Your task to perform on an android device: see tabs open on other devices in the chrome app Image 0: 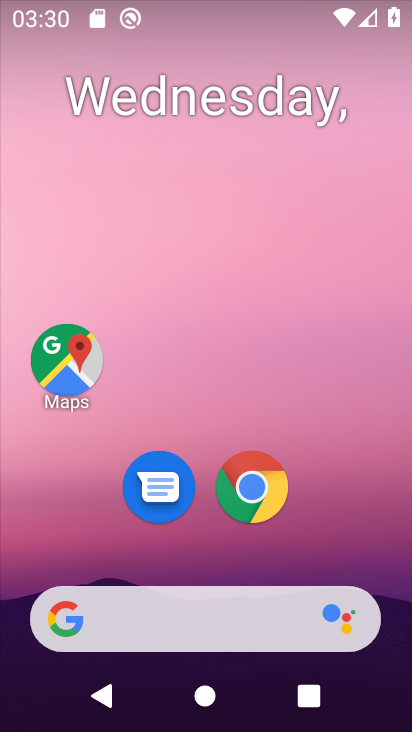
Step 0: click (254, 482)
Your task to perform on an android device: see tabs open on other devices in the chrome app Image 1: 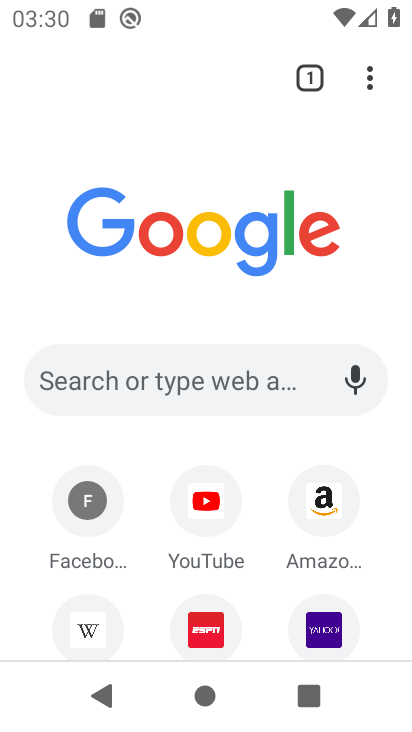
Step 1: click (371, 79)
Your task to perform on an android device: see tabs open on other devices in the chrome app Image 2: 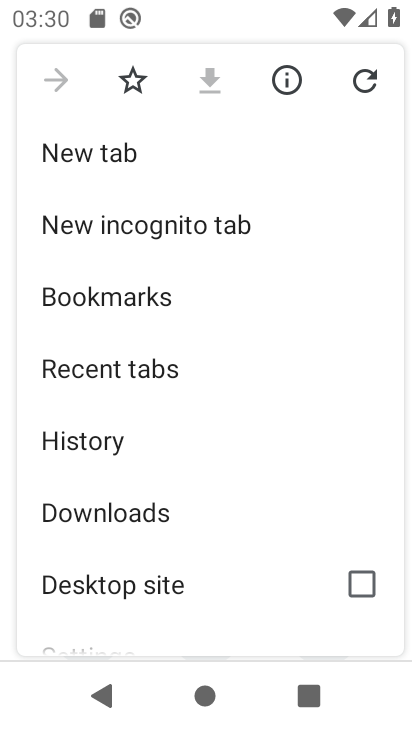
Step 2: click (140, 369)
Your task to perform on an android device: see tabs open on other devices in the chrome app Image 3: 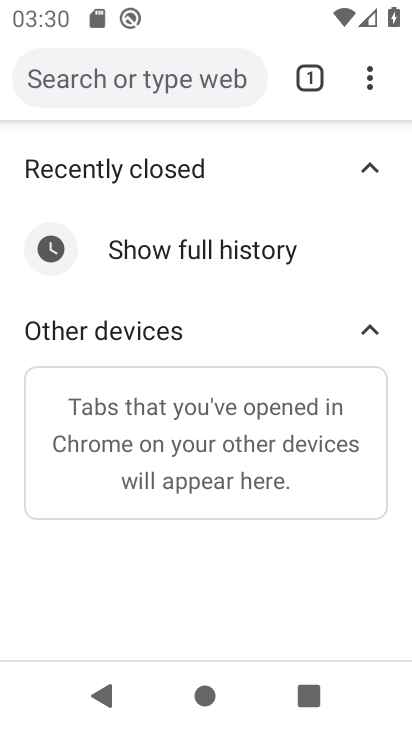
Step 3: task complete